Your task to perform on an android device: Add rayovac triple a to the cart on target.com Image 0: 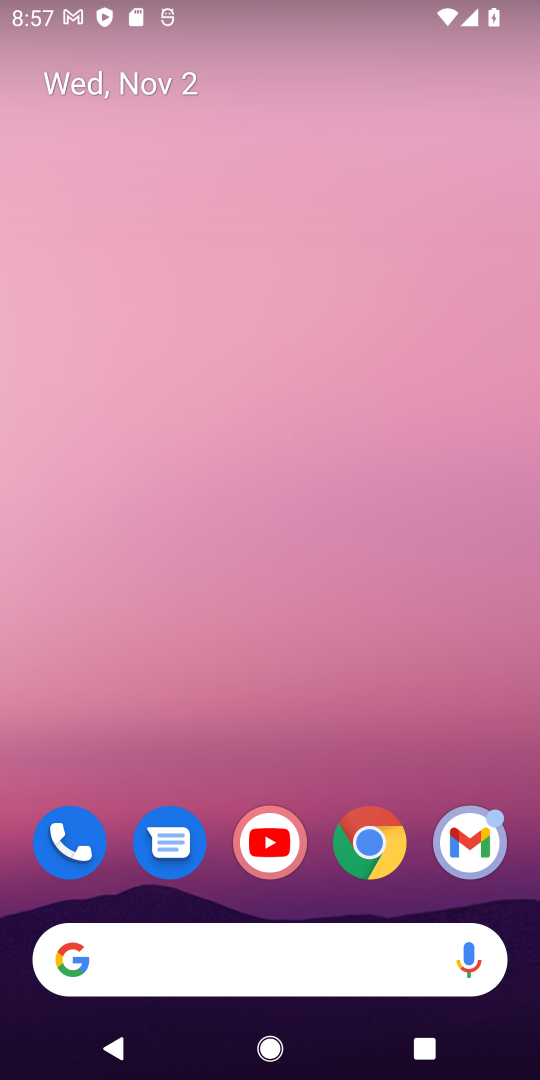
Step 0: drag from (289, 835) to (283, 337)
Your task to perform on an android device: Add rayovac triple a to the cart on target.com Image 1: 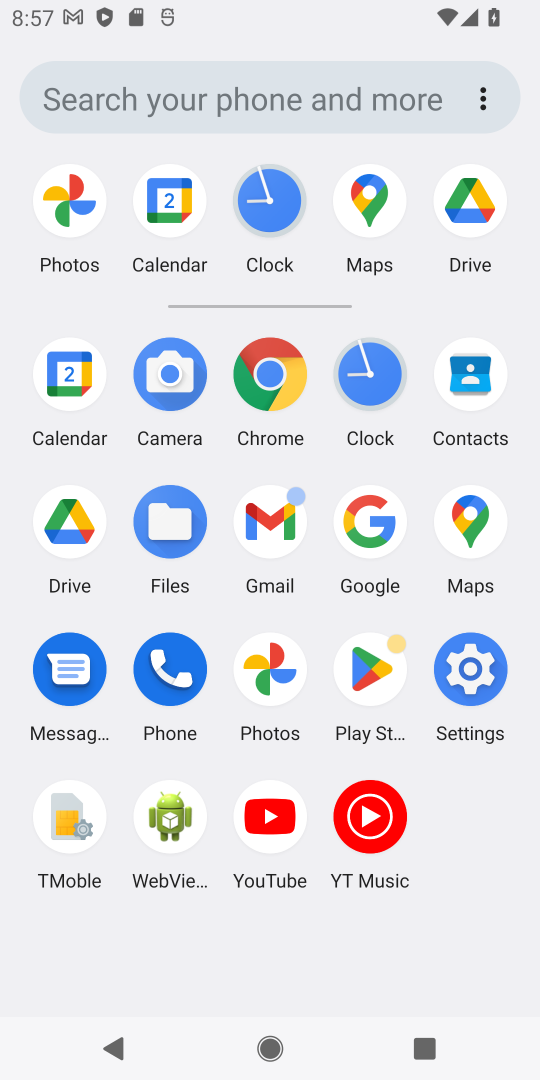
Step 1: click (351, 520)
Your task to perform on an android device: Add rayovac triple a to the cart on target.com Image 2: 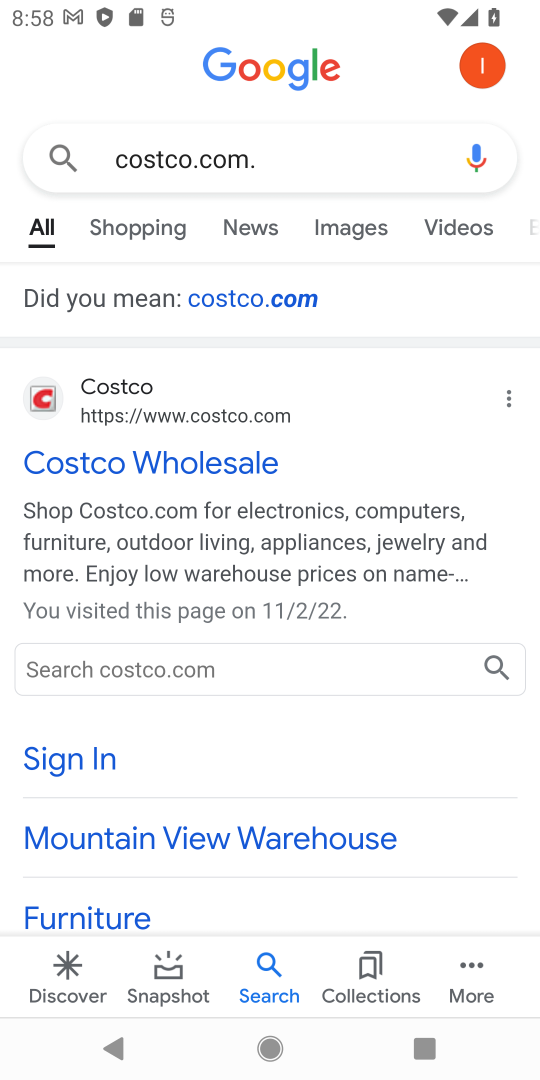
Step 2: click (241, 143)
Your task to perform on an android device: Add rayovac triple a to the cart on target.com Image 3: 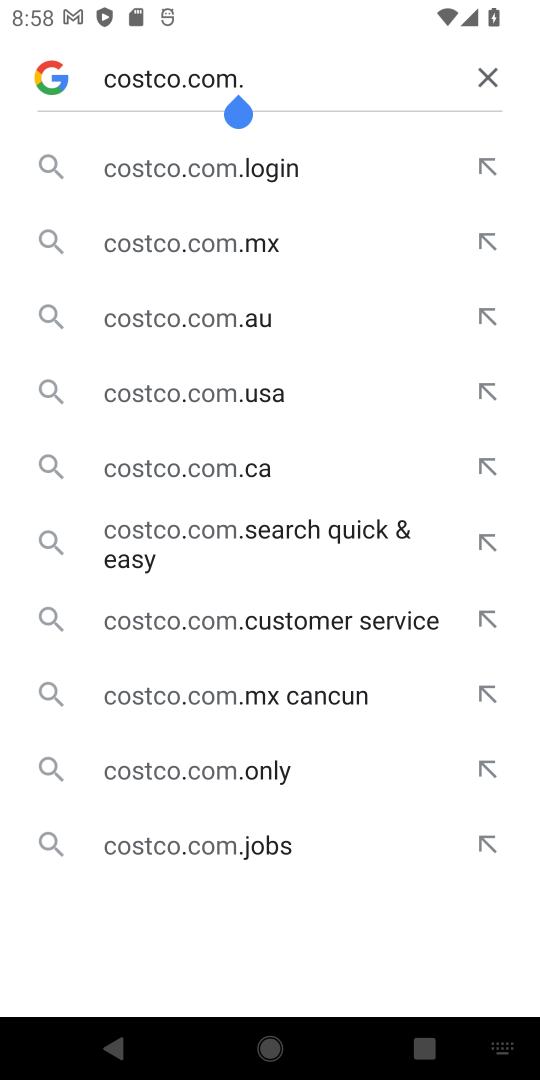
Step 3: click (483, 80)
Your task to perform on an android device: Add rayovac triple a to the cart on target.com Image 4: 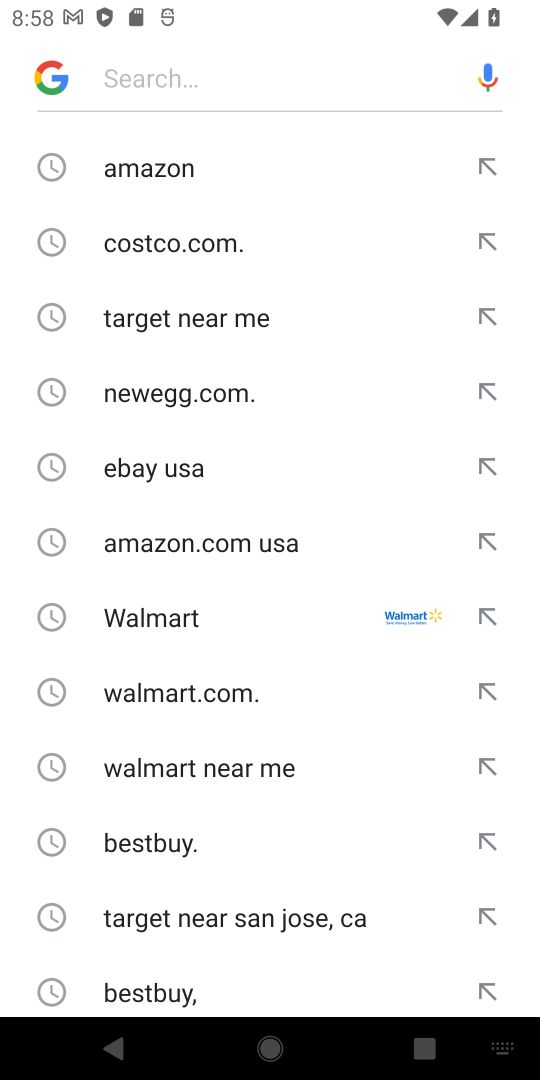
Step 4: click (186, 323)
Your task to perform on an android device: Add rayovac triple a to the cart on target.com Image 5: 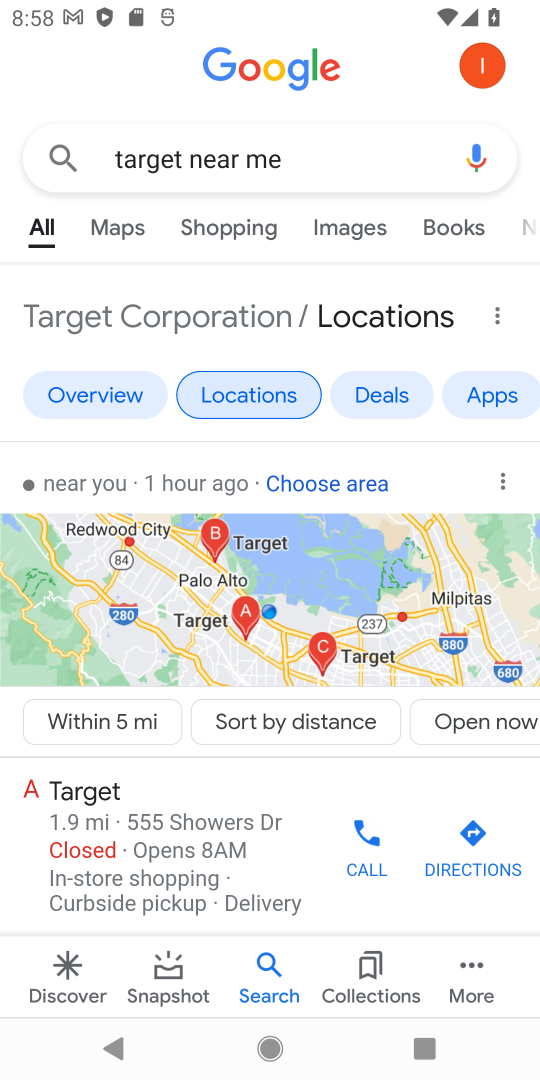
Step 5: drag from (220, 818) to (372, 255)
Your task to perform on an android device: Add rayovac triple a to the cart on target.com Image 6: 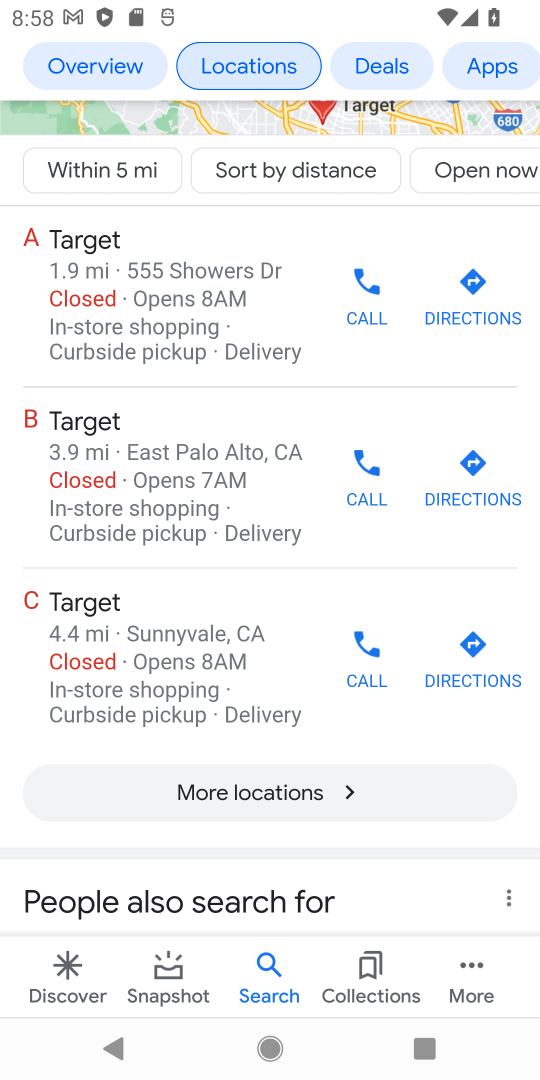
Step 6: drag from (157, 767) to (227, 236)
Your task to perform on an android device: Add rayovac triple a to the cart on target.com Image 7: 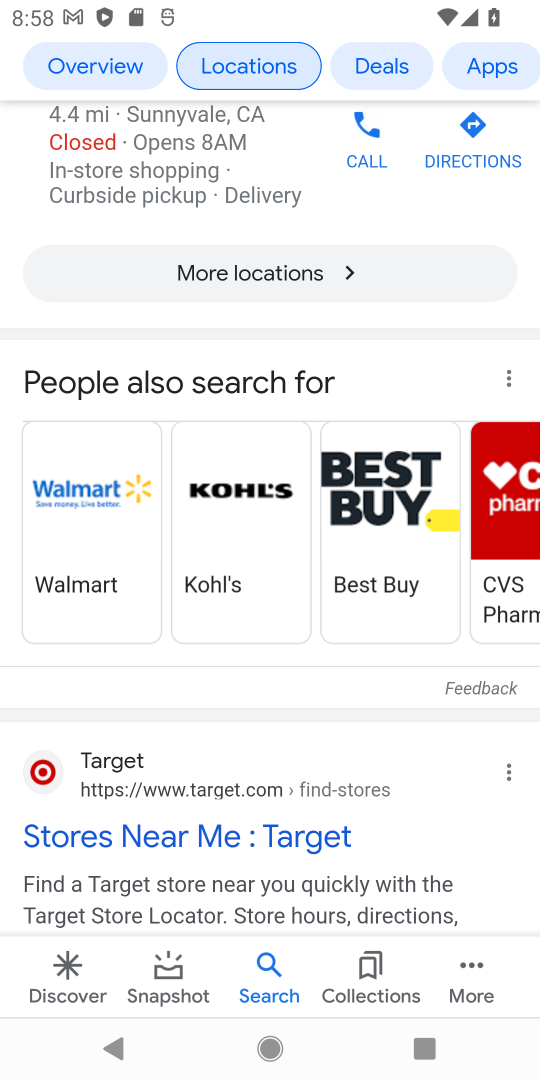
Step 7: click (38, 759)
Your task to perform on an android device: Add rayovac triple a to the cart on target.com Image 8: 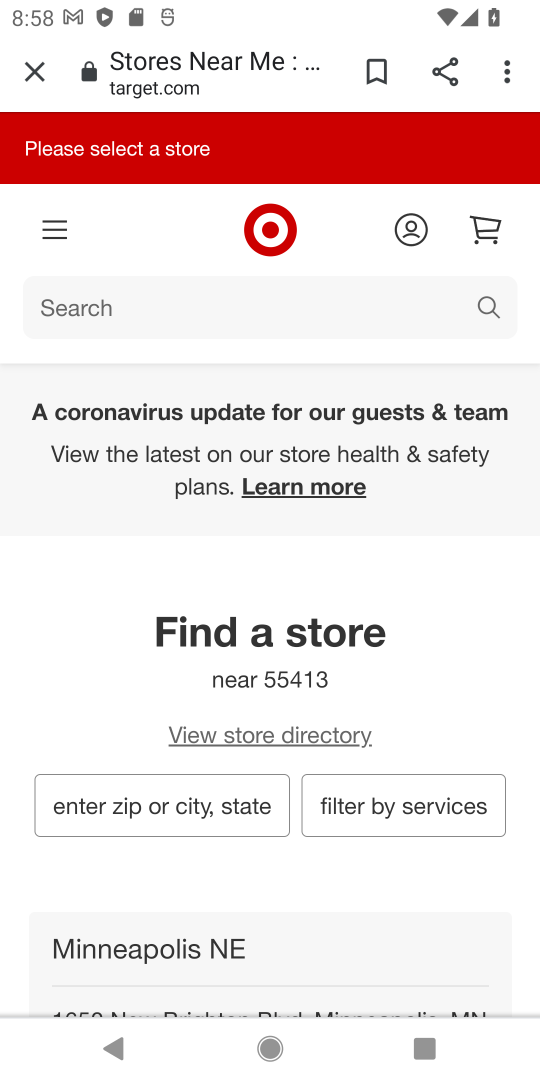
Step 8: click (183, 304)
Your task to perform on an android device: Add rayovac triple a to the cart on target.com Image 9: 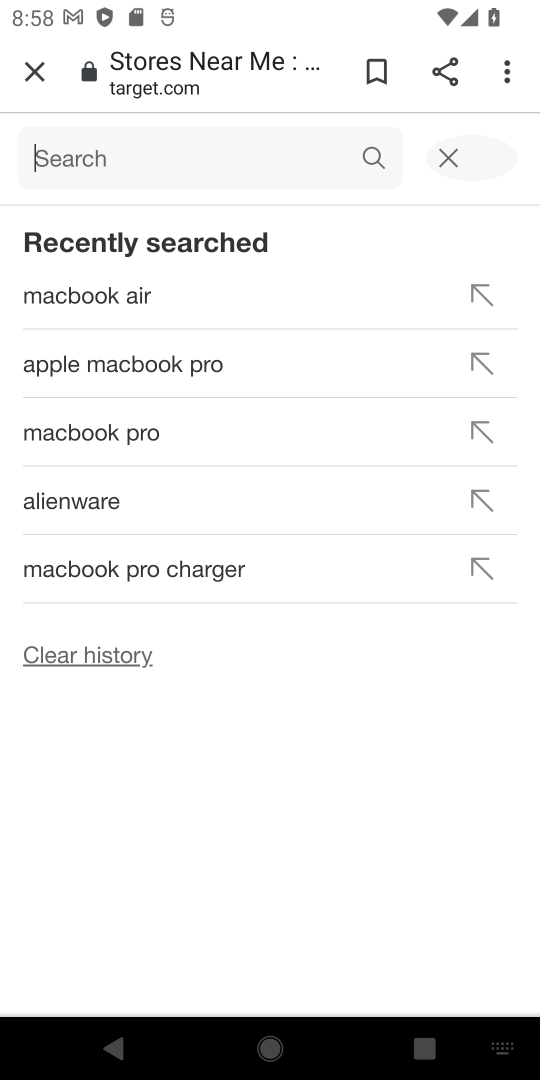
Step 9: click (270, 145)
Your task to perform on an android device: Add rayovac triple a to the cart on target.com Image 10: 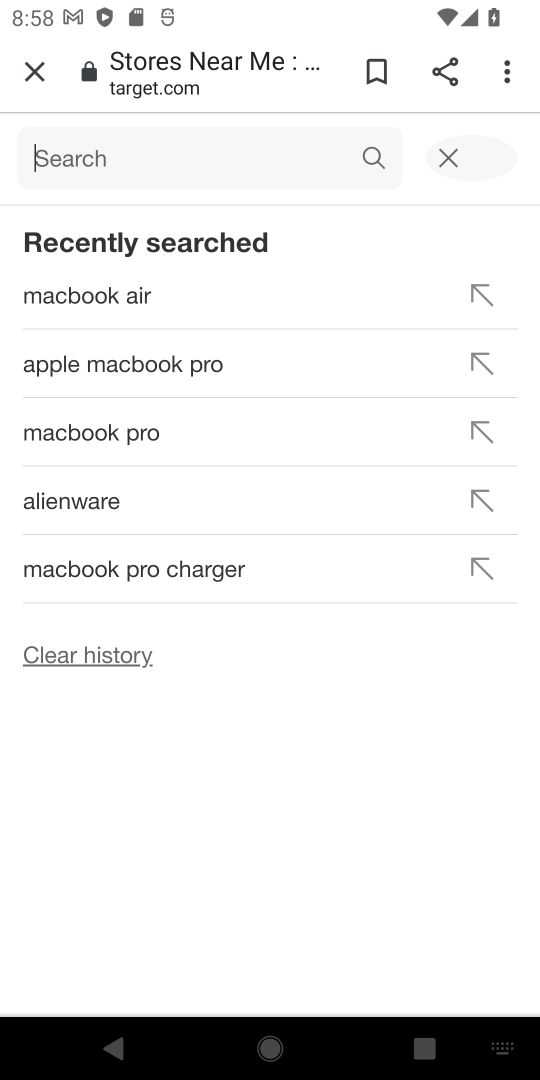
Step 10: type "rayovac triple "
Your task to perform on an android device: Add rayovac triple a to the cart on target.com Image 11: 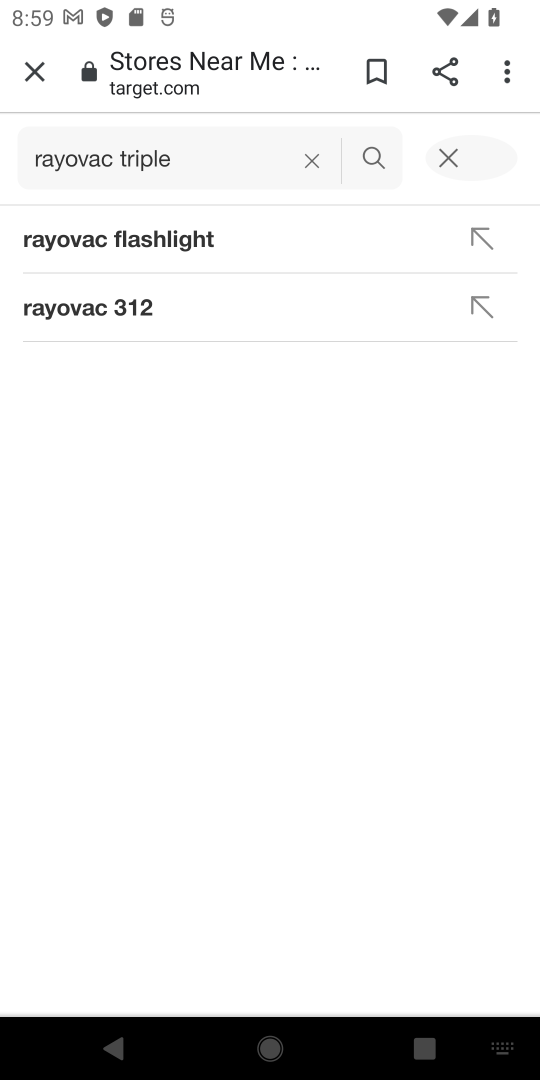
Step 11: click (358, 154)
Your task to perform on an android device: Add rayovac triple a to the cart on target.com Image 12: 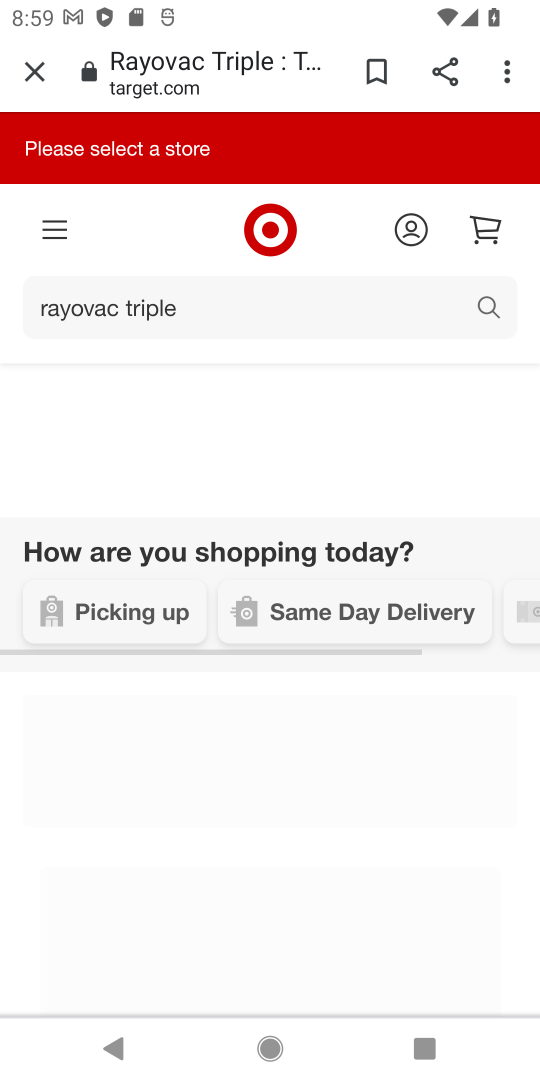
Step 12: drag from (298, 871) to (312, 294)
Your task to perform on an android device: Add rayovac triple a to the cart on target.com Image 13: 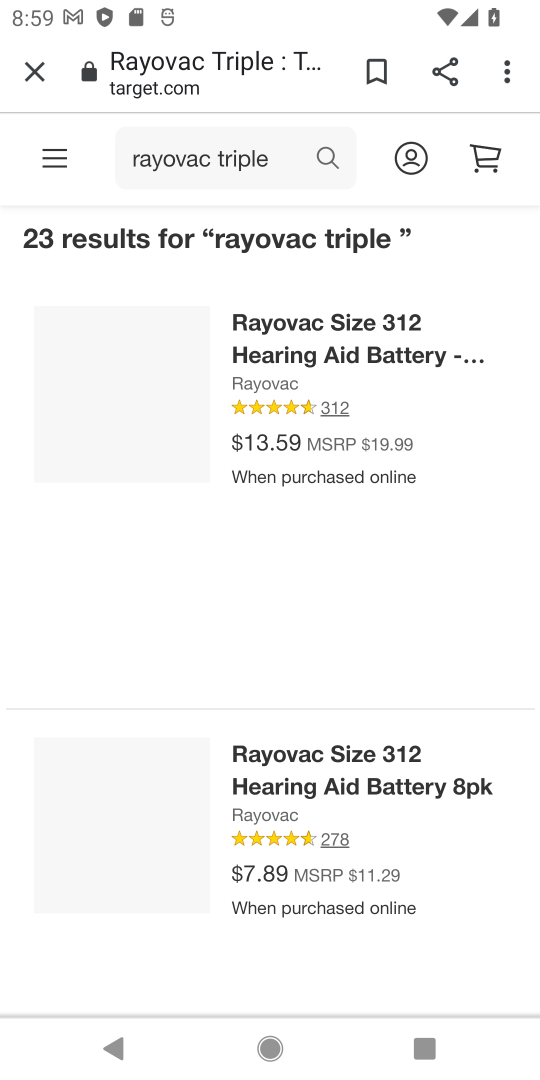
Step 13: drag from (249, 815) to (263, 703)
Your task to perform on an android device: Add rayovac triple a to the cart on target.com Image 14: 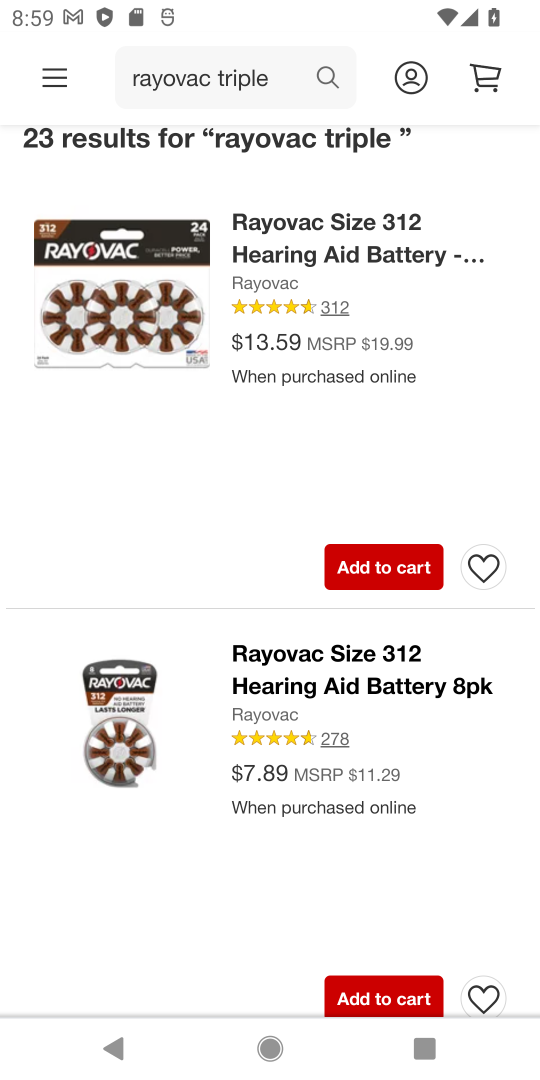
Step 14: click (350, 554)
Your task to perform on an android device: Add rayovac triple a to the cart on target.com Image 15: 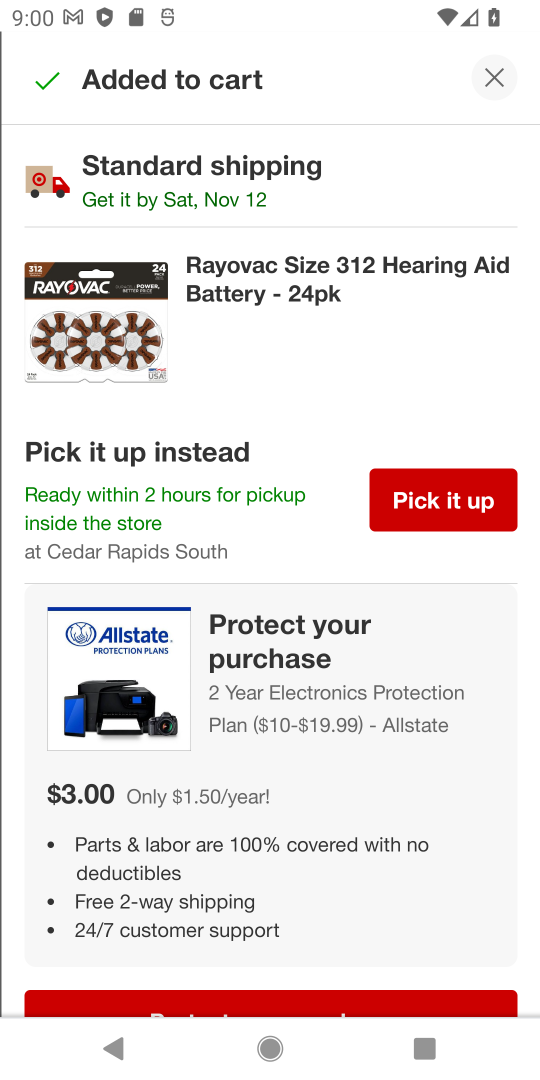
Step 15: task complete